Your task to perform on an android device: Open maps Image 0: 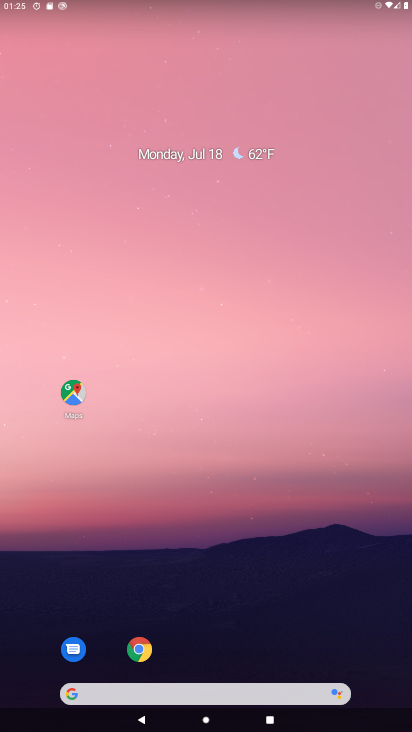
Step 0: click (76, 404)
Your task to perform on an android device: Open maps Image 1: 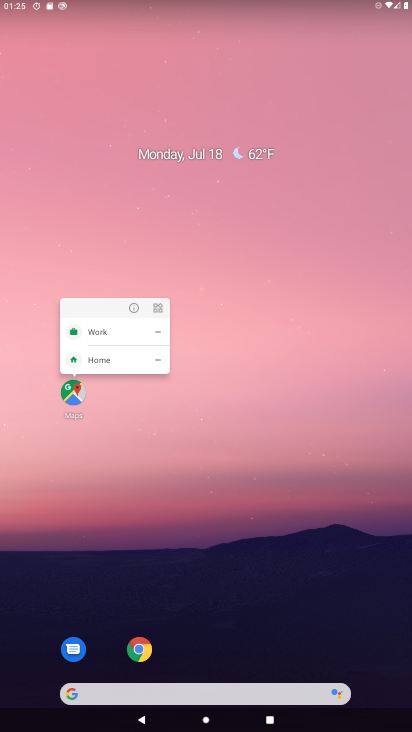
Step 1: click (75, 404)
Your task to perform on an android device: Open maps Image 2: 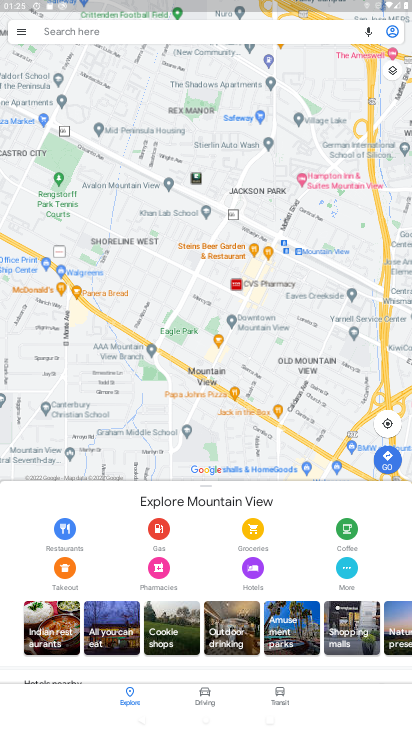
Step 2: click (49, 31)
Your task to perform on an android device: Open maps Image 3: 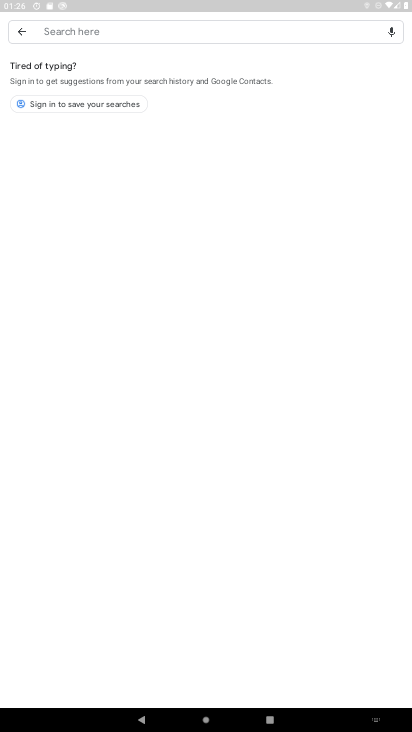
Step 3: click (22, 34)
Your task to perform on an android device: Open maps Image 4: 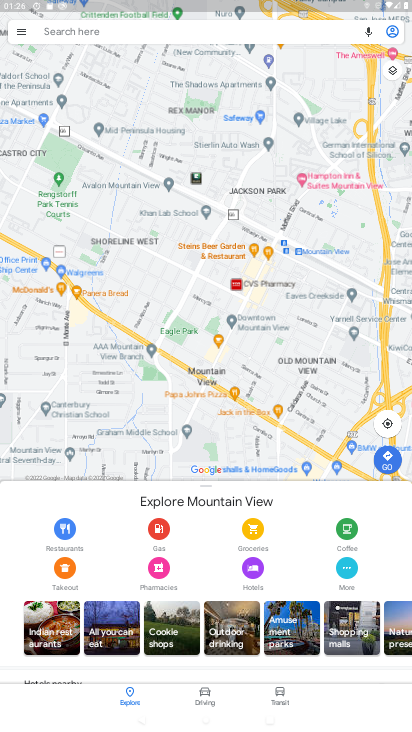
Step 4: task complete